Your task to perform on an android device: Search for sushi restaurants on Maps Image 0: 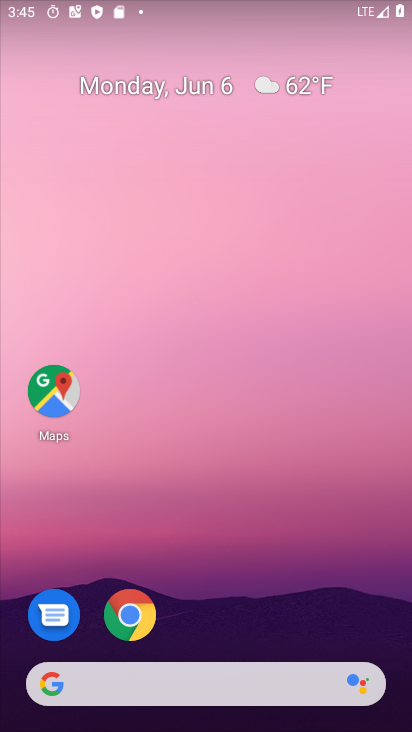
Step 0: drag from (316, 709) to (314, 4)
Your task to perform on an android device: Search for sushi restaurants on Maps Image 1: 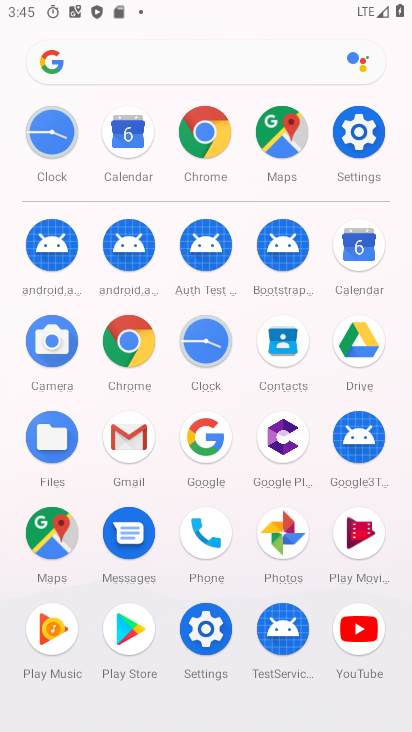
Step 1: click (40, 551)
Your task to perform on an android device: Search for sushi restaurants on Maps Image 2: 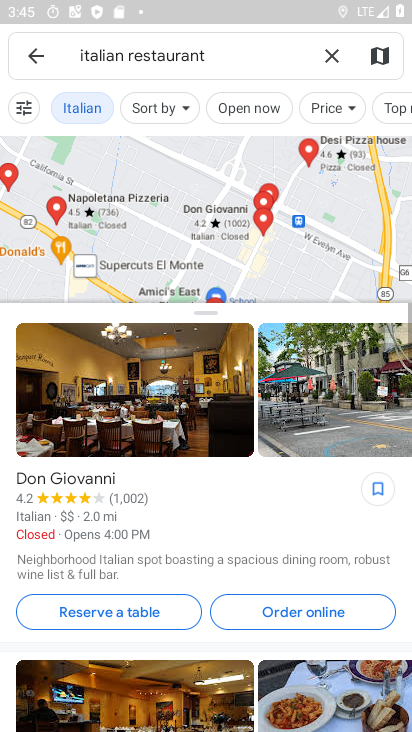
Step 2: click (341, 52)
Your task to perform on an android device: Search for sushi restaurants on Maps Image 3: 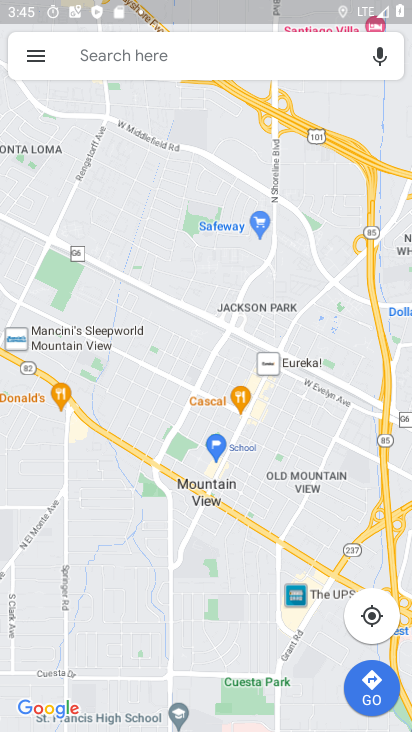
Step 3: click (220, 57)
Your task to perform on an android device: Search for sushi restaurants on Maps Image 4: 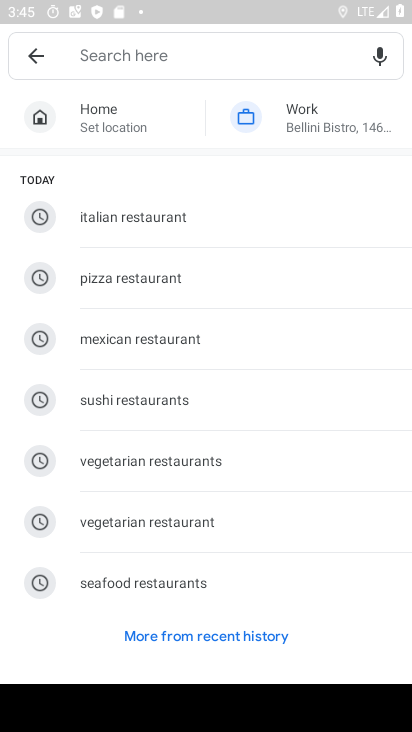
Step 4: click (210, 407)
Your task to perform on an android device: Search for sushi restaurants on Maps Image 5: 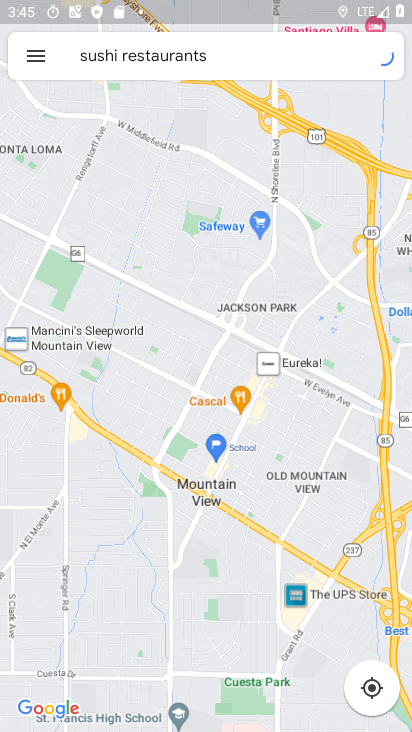
Step 5: task complete